Your task to perform on an android device: toggle notification dots Image 0: 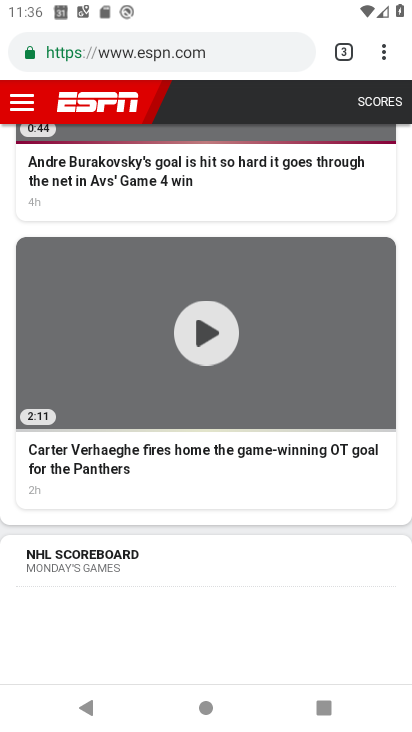
Step 0: press home button
Your task to perform on an android device: toggle notification dots Image 1: 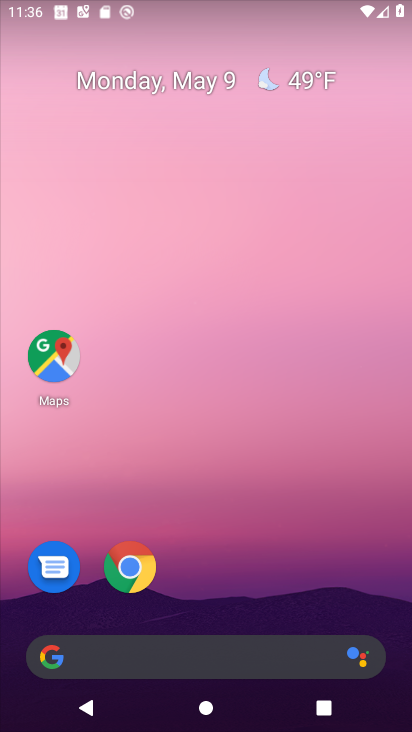
Step 1: drag from (174, 634) to (197, 246)
Your task to perform on an android device: toggle notification dots Image 2: 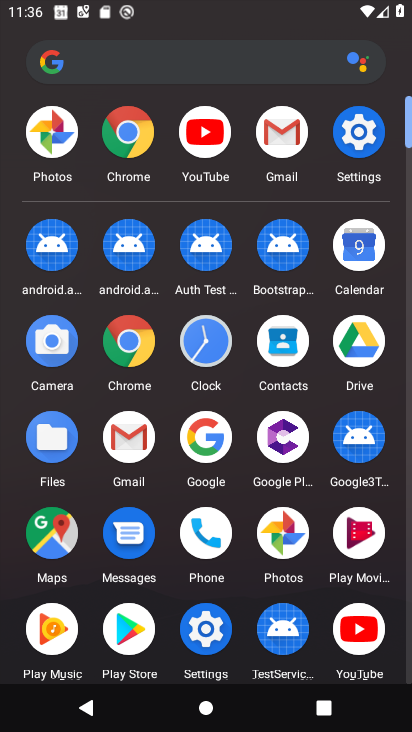
Step 2: click (357, 137)
Your task to perform on an android device: toggle notification dots Image 3: 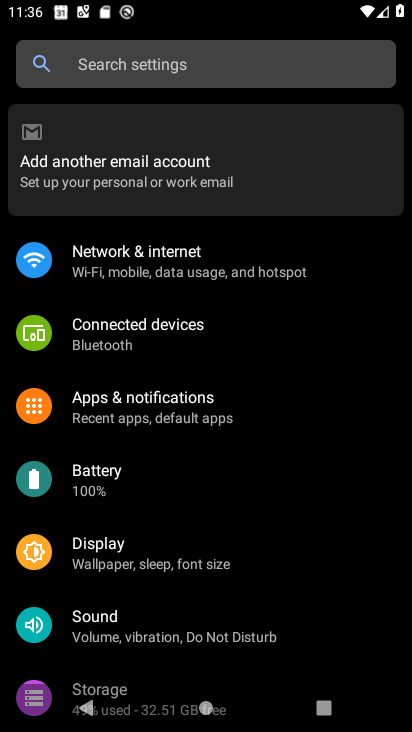
Step 3: drag from (122, 685) to (120, 301)
Your task to perform on an android device: toggle notification dots Image 4: 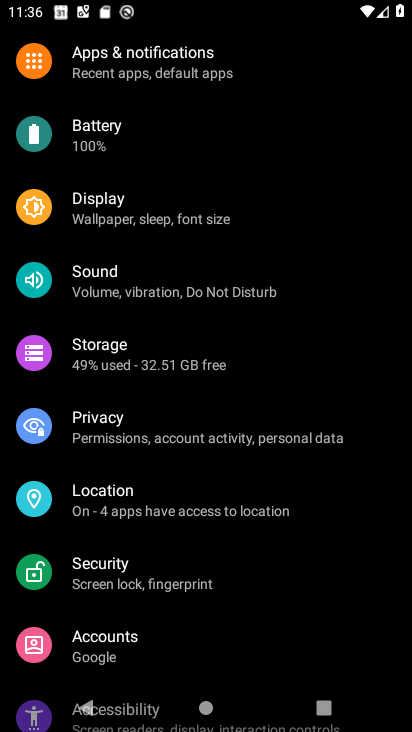
Step 4: click (153, 74)
Your task to perform on an android device: toggle notification dots Image 5: 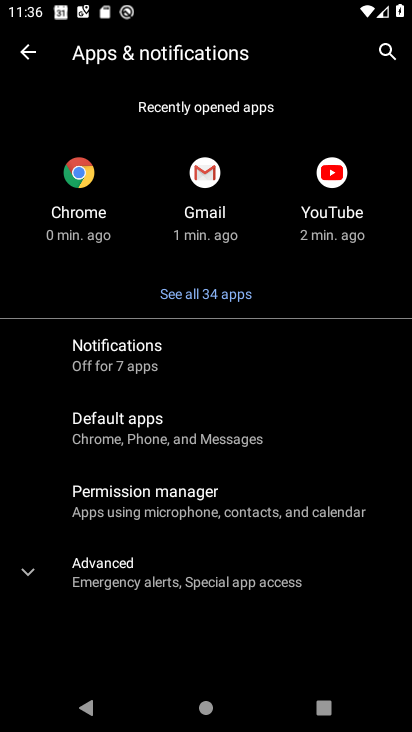
Step 5: click (143, 575)
Your task to perform on an android device: toggle notification dots Image 6: 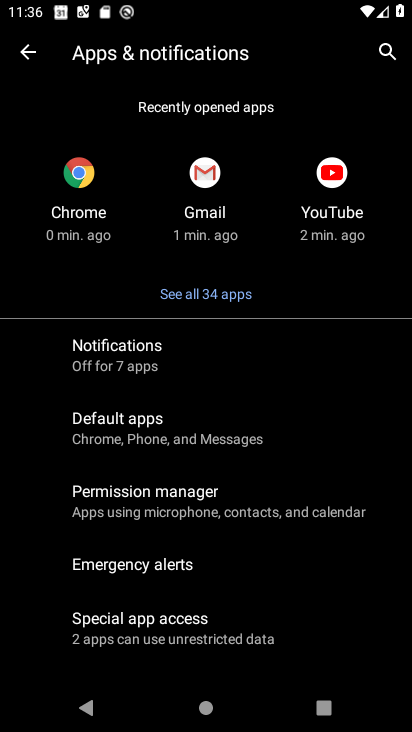
Step 6: drag from (155, 653) to (140, 340)
Your task to perform on an android device: toggle notification dots Image 7: 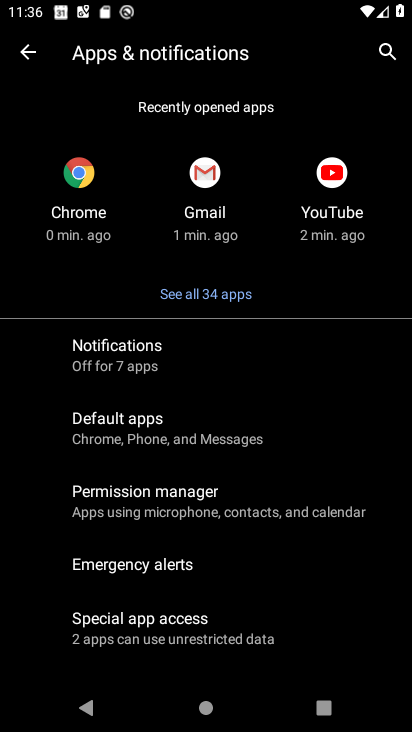
Step 7: click (125, 358)
Your task to perform on an android device: toggle notification dots Image 8: 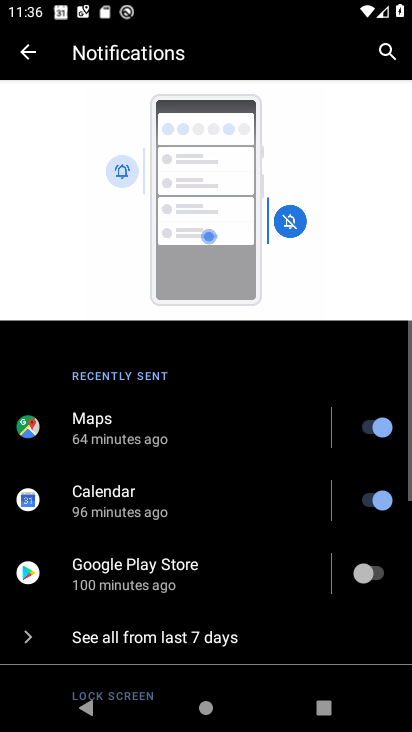
Step 8: drag from (149, 617) to (149, 307)
Your task to perform on an android device: toggle notification dots Image 9: 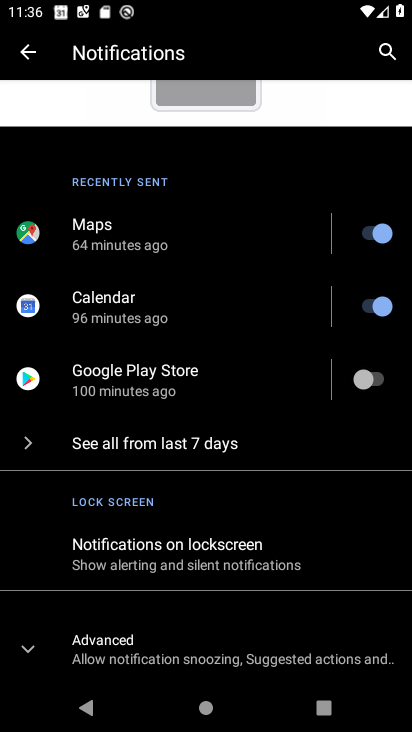
Step 9: click (96, 656)
Your task to perform on an android device: toggle notification dots Image 10: 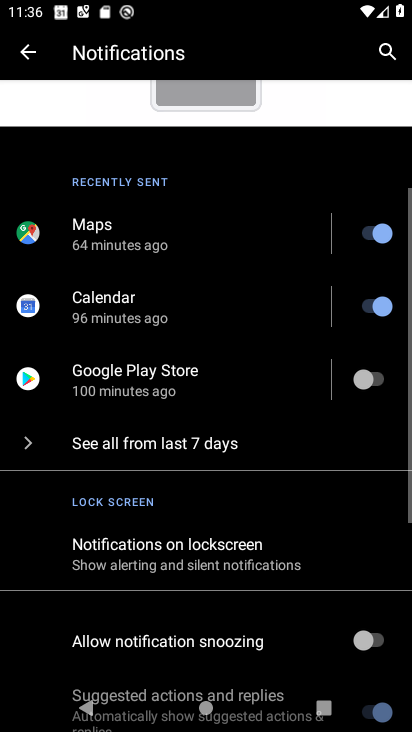
Step 10: drag from (231, 697) to (244, 428)
Your task to perform on an android device: toggle notification dots Image 11: 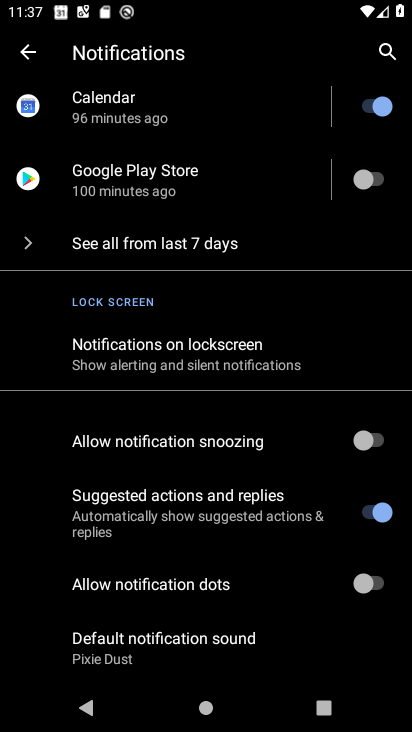
Step 11: click (370, 582)
Your task to perform on an android device: toggle notification dots Image 12: 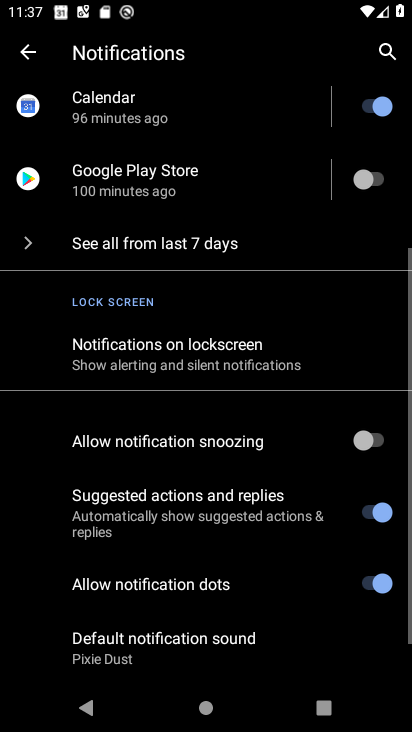
Step 12: task complete